Your task to perform on an android device: stop showing notifications on the lock screen Image 0: 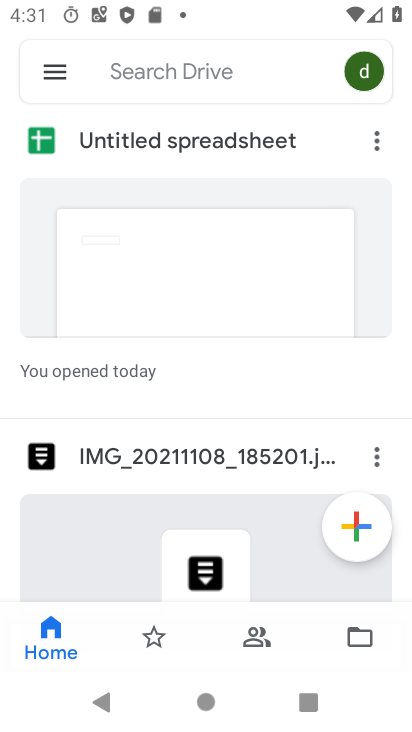
Step 0: press home button
Your task to perform on an android device: stop showing notifications on the lock screen Image 1: 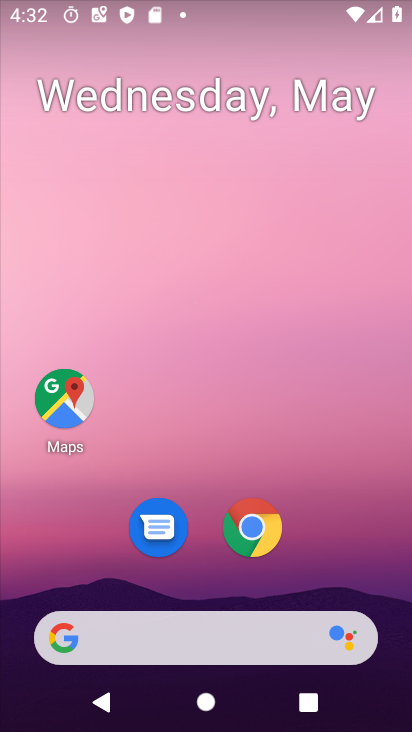
Step 1: drag from (287, 577) to (321, 151)
Your task to perform on an android device: stop showing notifications on the lock screen Image 2: 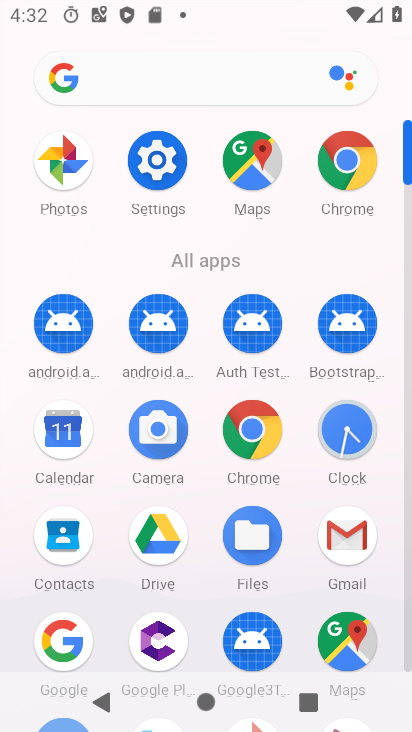
Step 2: click (156, 156)
Your task to perform on an android device: stop showing notifications on the lock screen Image 3: 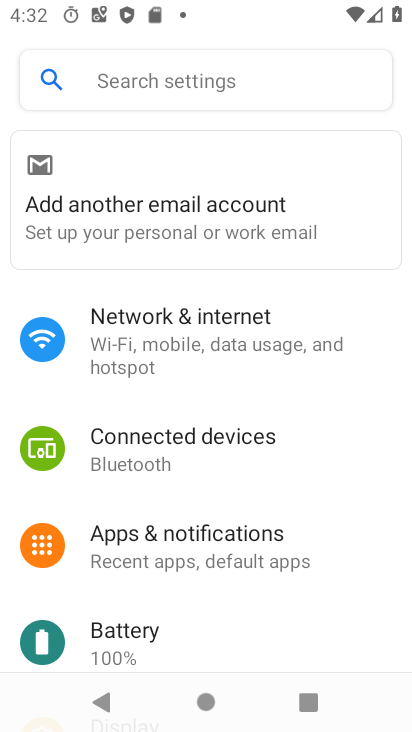
Step 3: drag from (248, 665) to (273, 220)
Your task to perform on an android device: stop showing notifications on the lock screen Image 4: 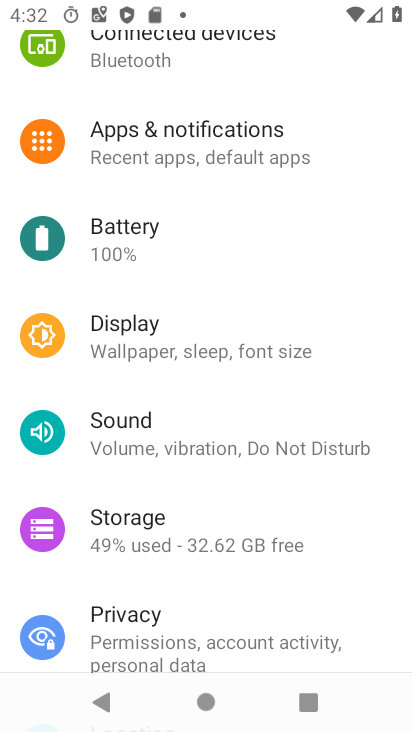
Step 4: drag from (335, 578) to (348, 218)
Your task to perform on an android device: stop showing notifications on the lock screen Image 5: 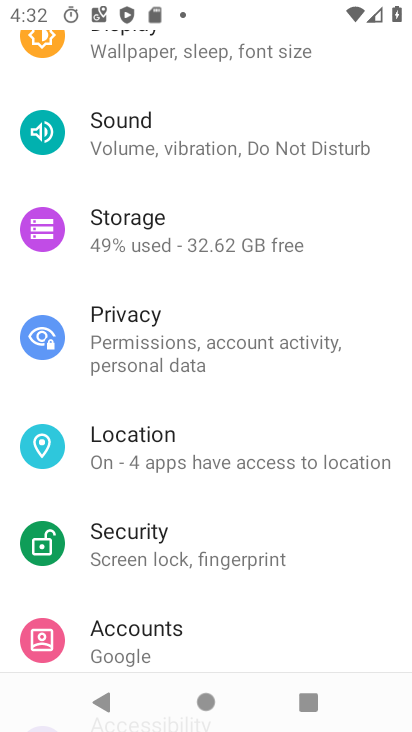
Step 5: click (125, 433)
Your task to perform on an android device: stop showing notifications on the lock screen Image 6: 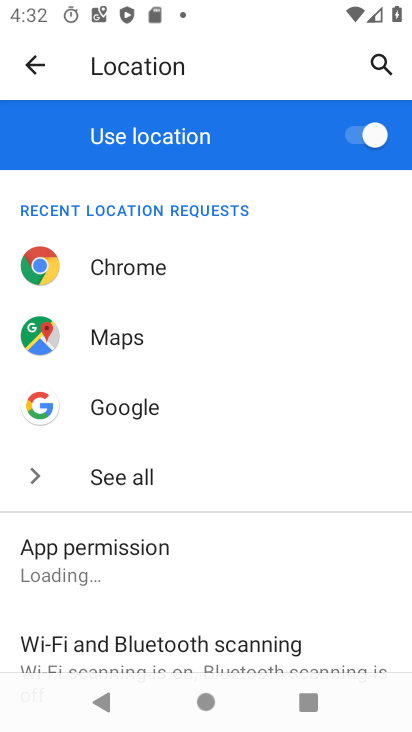
Step 6: click (24, 64)
Your task to perform on an android device: stop showing notifications on the lock screen Image 7: 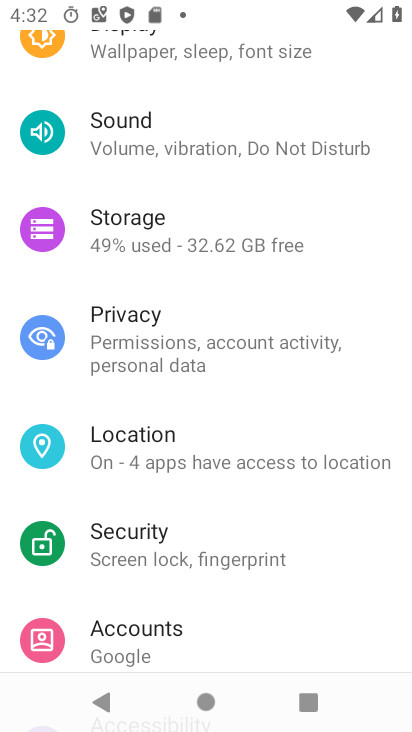
Step 7: drag from (316, 161) to (331, 575)
Your task to perform on an android device: stop showing notifications on the lock screen Image 8: 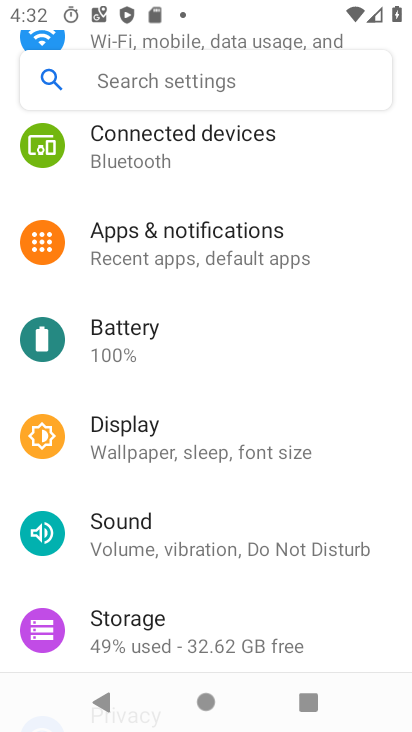
Step 8: click (159, 241)
Your task to perform on an android device: stop showing notifications on the lock screen Image 9: 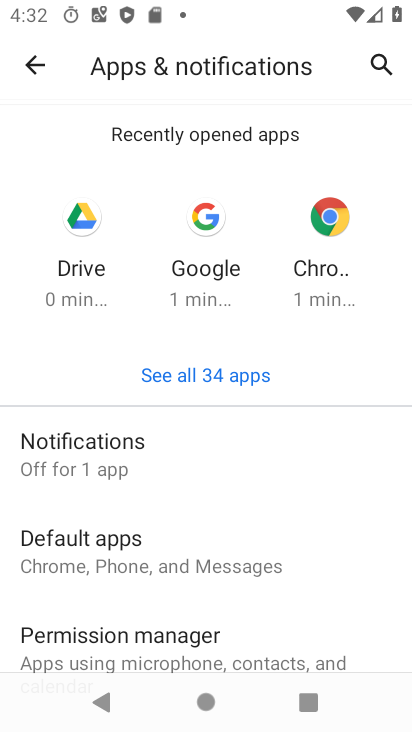
Step 9: click (87, 463)
Your task to perform on an android device: stop showing notifications on the lock screen Image 10: 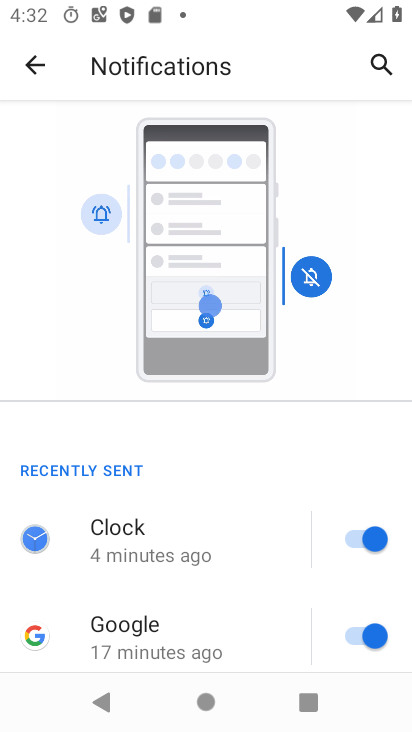
Step 10: drag from (280, 615) to (342, 340)
Your task to perform on an android device: stop showing notifications on the lock screen Image 11: 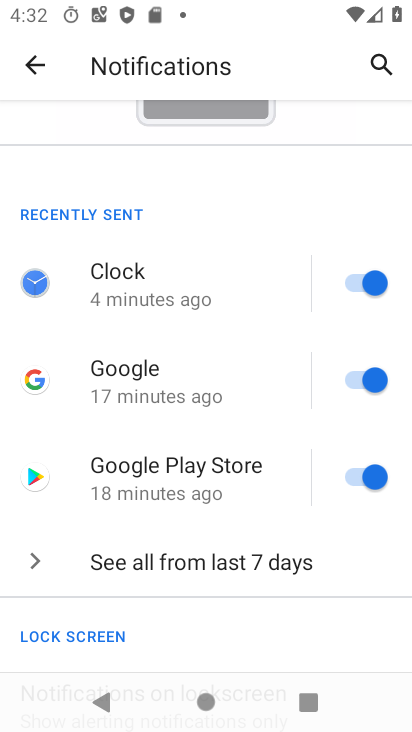
Step 11: drag from (299, 641) to (310, 368)
Your task to perform on an android device: stop showing notifications on the lock screen Image 12: 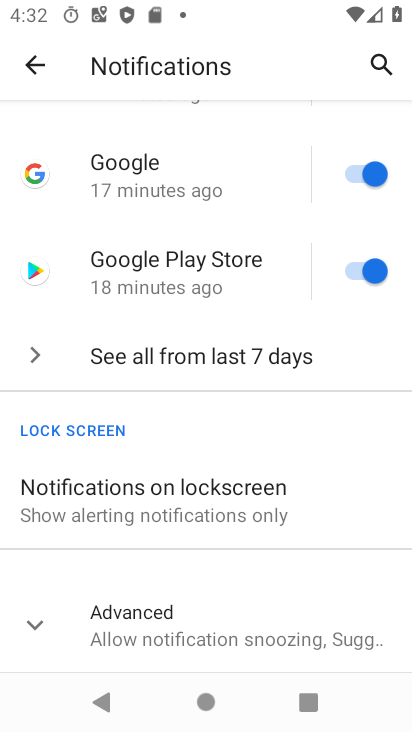
Step 12: click (230, 494)
Your task to perform on an android device: stop showing notifications on the lock screen Image 13: 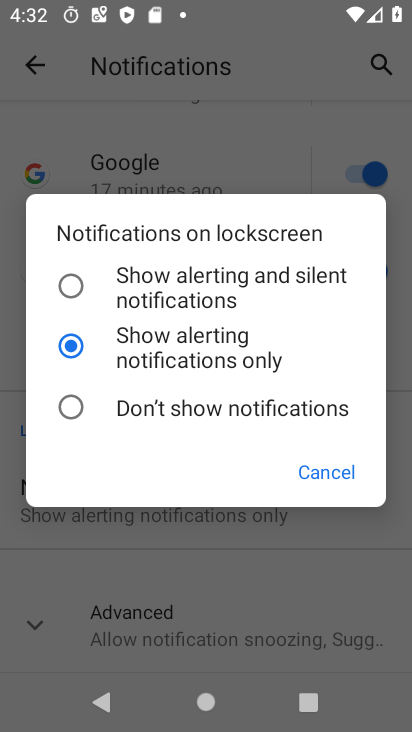
Step 13: click (322, 471)
Your task to perform on an android device: stop showing notifications on the lock screen Image 14: 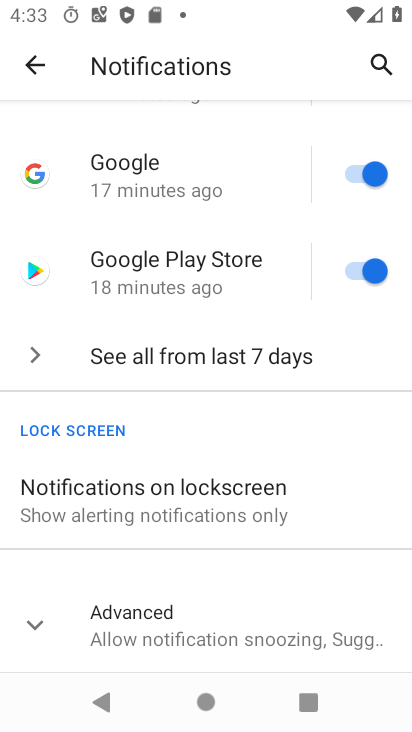
Step 14: task complete